Your task to perform on an android device: turn on the 24-hour format for clock Image 0: 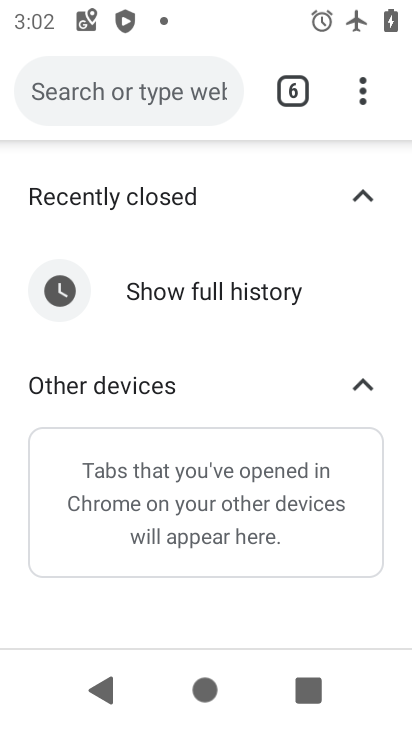
Step 0: press home button
Your task to perform on an android device: turn on the 24-hour format for clock Image 1: 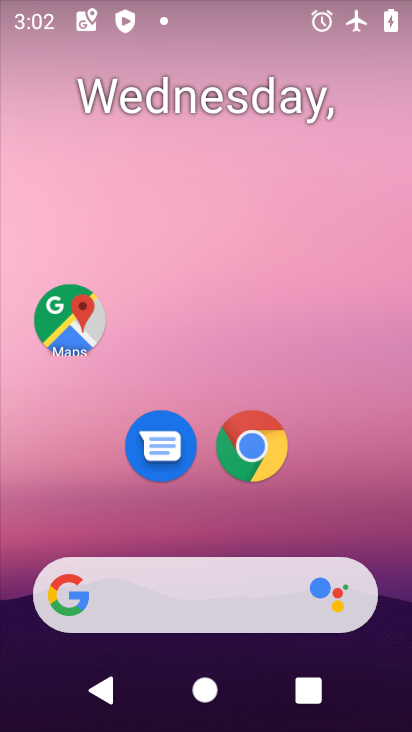
Step 1: drag from (205, 543) to (247, 207)
Your task to perform on an android device: turn on the 24-hour format for clock Image 2: 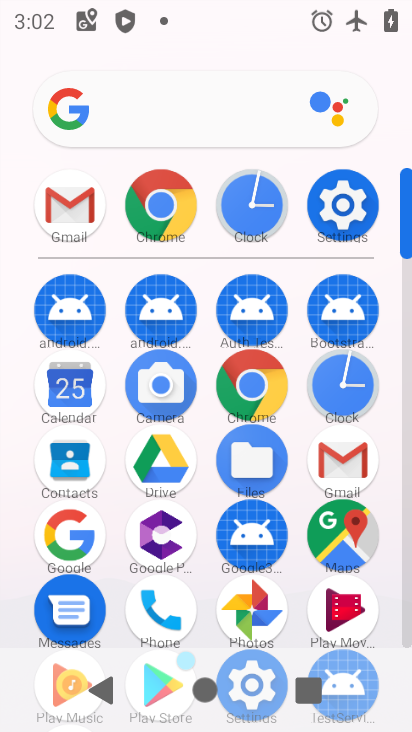
Step 2: click (338, 382)
Your task to perform on an android device: turn on the 24-hour format for clock Image 3: 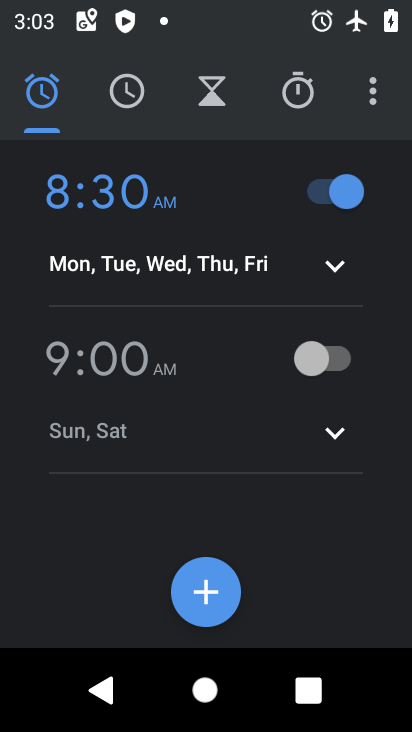
Step 3: click (374, 81)
Your task to perform on an android device: turn on the 24-hour format for clock Image 4: 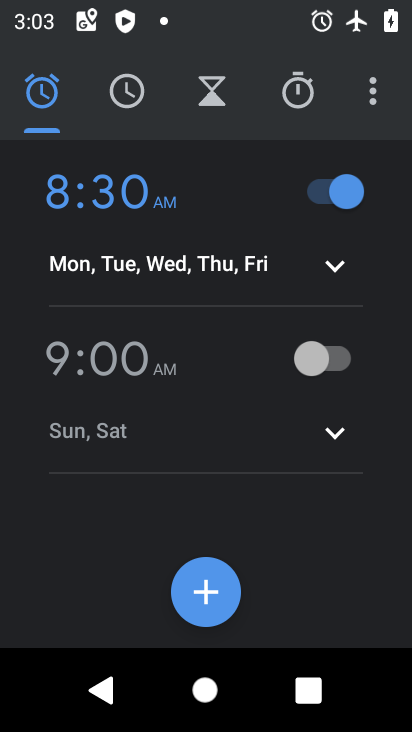
Step 4: click (374, 92)
Your task to perform on an android device: turn on the 24-hour format for clock Image 5: 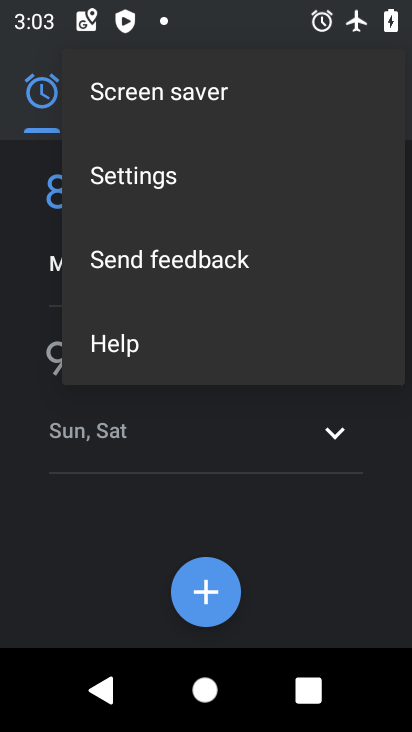
Step 5: click (212, 171)
Your task to perform on an android device: turn on the 24-hour format for clock Image 6: 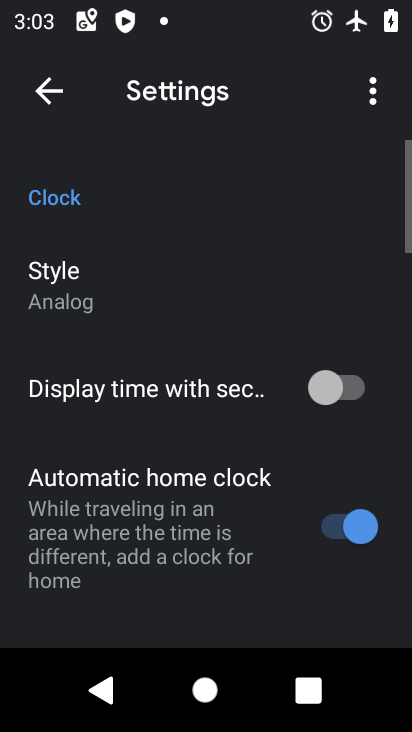
Step 6: drag from (207, 538) to (233, 230)
Your task to perform on an android device: turn on the 24-hour format for clock Image 7: 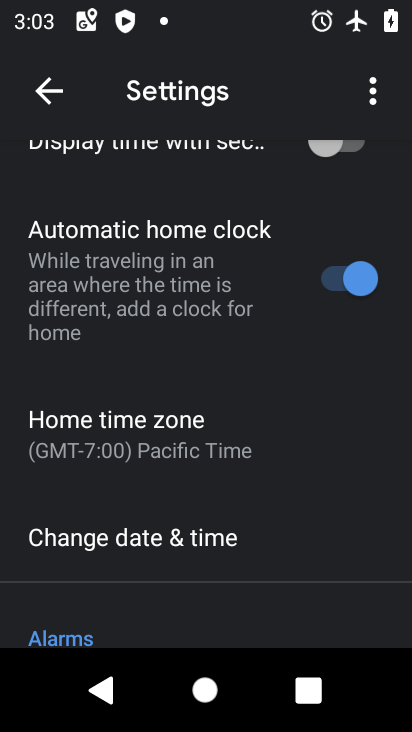
Step 7: click (198, 530)
Your task to perform on an android device: turn on the 24-hour format for clock Image 8: 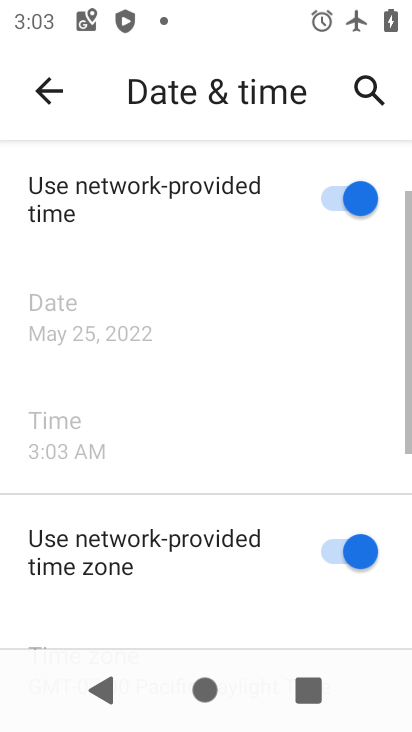
Step 8: drag from (203, 527) to (234, 284)
Your task to perform on an android device: turn on the 24-hour format for clock Image 9: 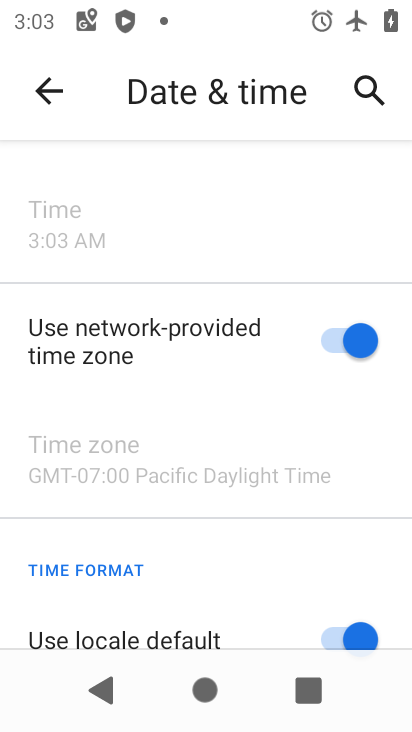
Step 9: drag from (206, 573) to (255, 299)
Your task to perform on an android device: turn on the 24-hour format for clock Image 10: 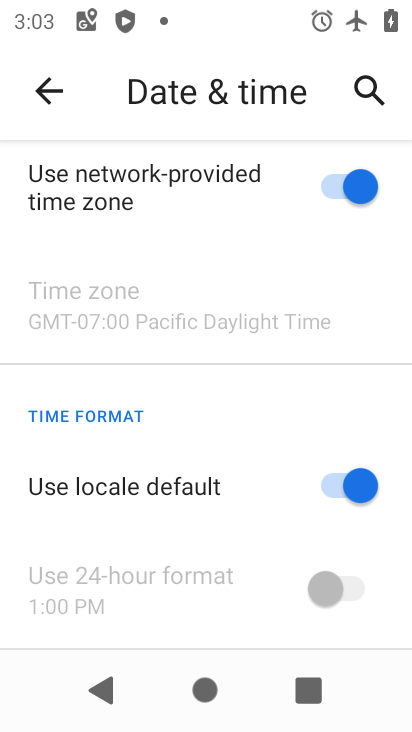
Step 10: click (332, 485)
Your task to perform on an android device: turn on the 24-hour format for clock Image 11: 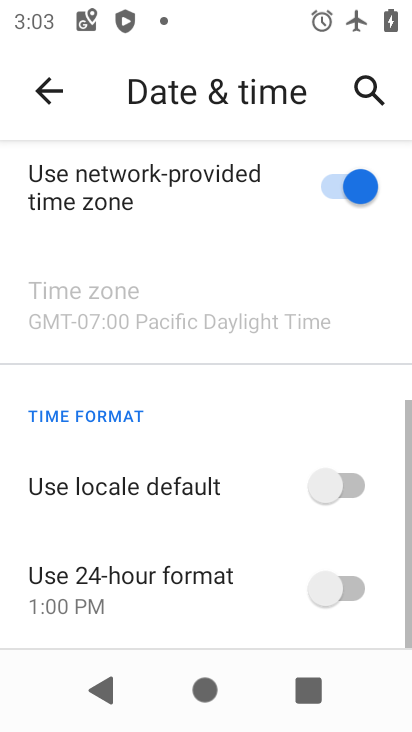
Step 11: click (351, 582)
Your task to perform on an android device: turn on the 24-hour format for clock Image 12: 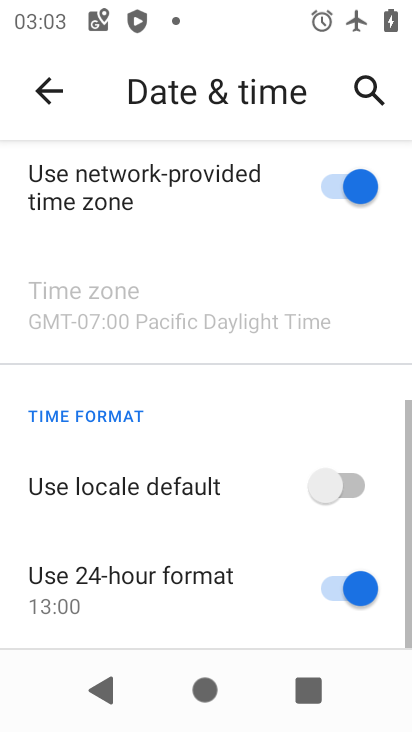
Step 12: task complete